Your task to perform on an android device: Show me recent news Image 0: 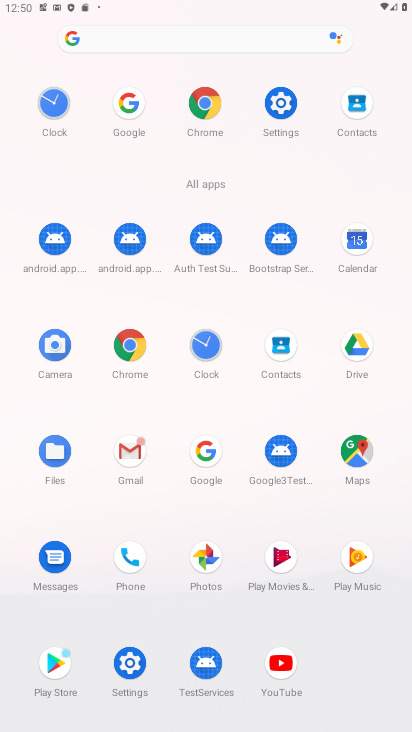
Step 0: press home button
Your task to perform on an android device: Show me recent news Image 1: 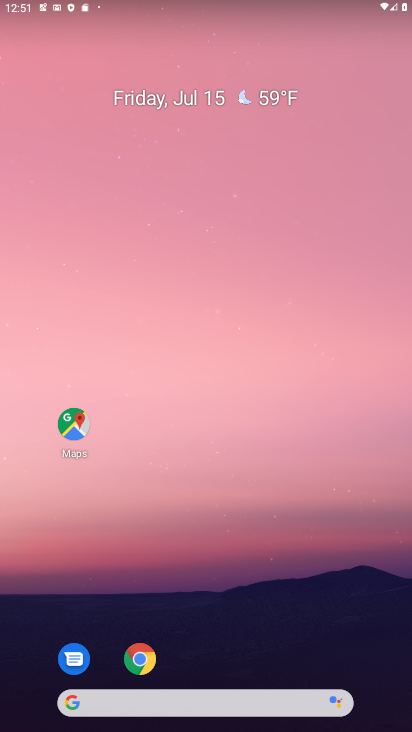
Step 1: drag from (5, 296) to (194, 302)
Your task to perform on an android device: Show me recent news Image 2: 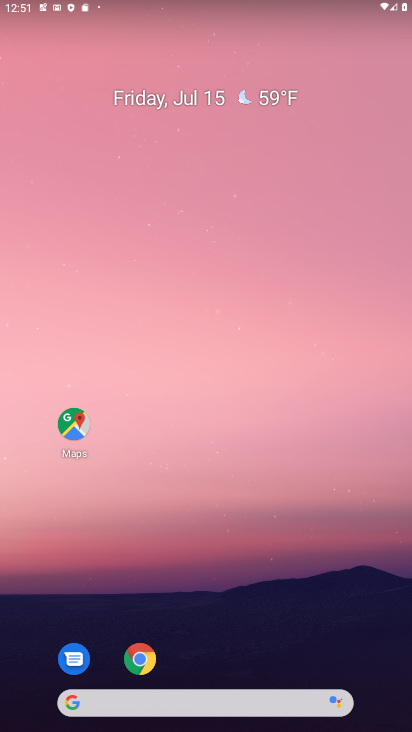
Step 2: drag from (12, 283) to (317, 313)
Your task to perform on an android device: Show me recent news Image 3: 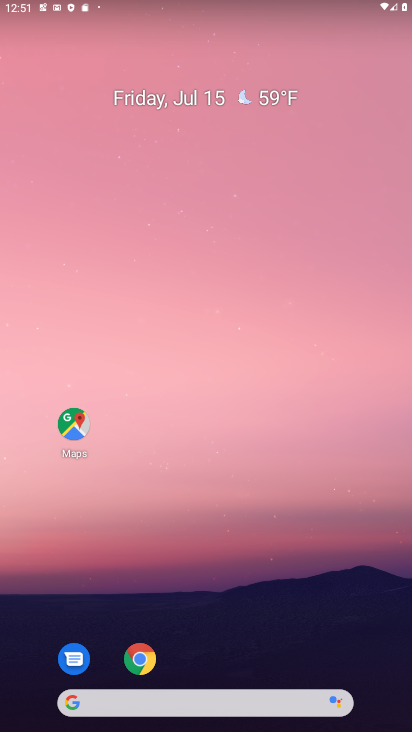
Step 3: drag from (8, 262) to (195, 287)
Your task to perform on an android device: Show me recent news Image 4: 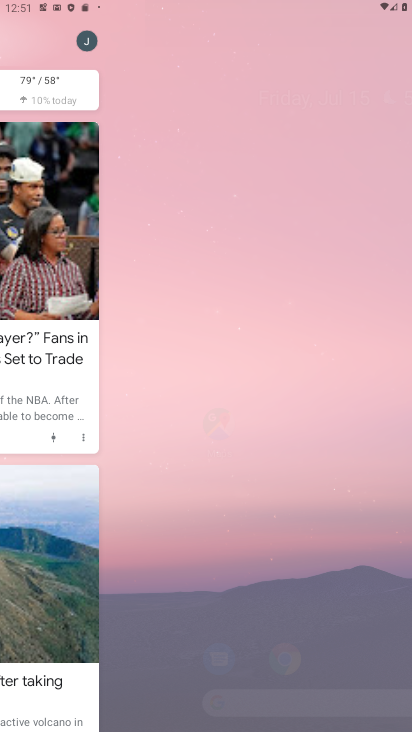
Step 4: click (411, 296)
Your task to perform on an android device: Show me recent news Image 5: 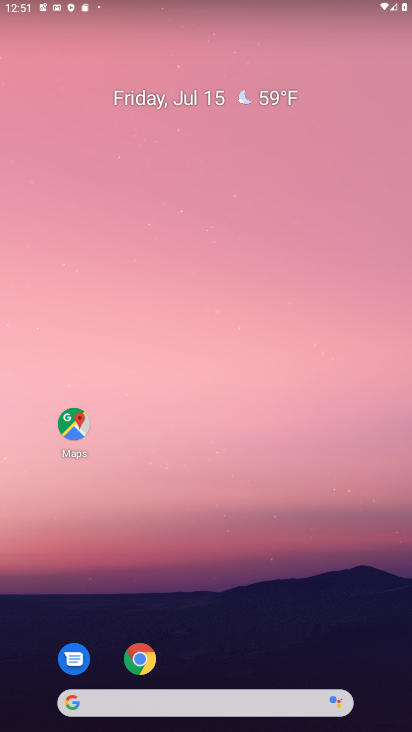
Step 5: task complete